Your task to perform on an android device: check out phone information Image 0: 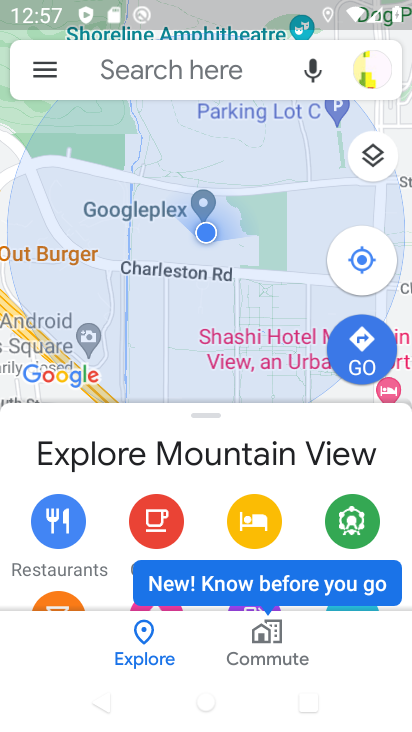
Step 0: press home button
Your task to perform on an android device: check out phone information Image 1: 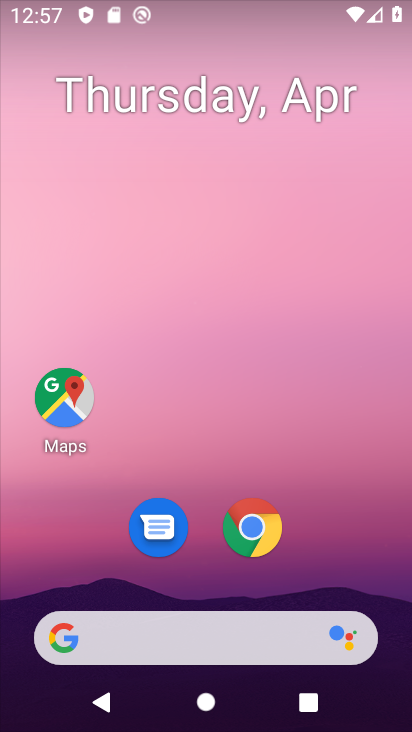
Step 1: drag from (346, 562) to (329, 144)
Your task to perform on an android device: check out phone information Image 2: 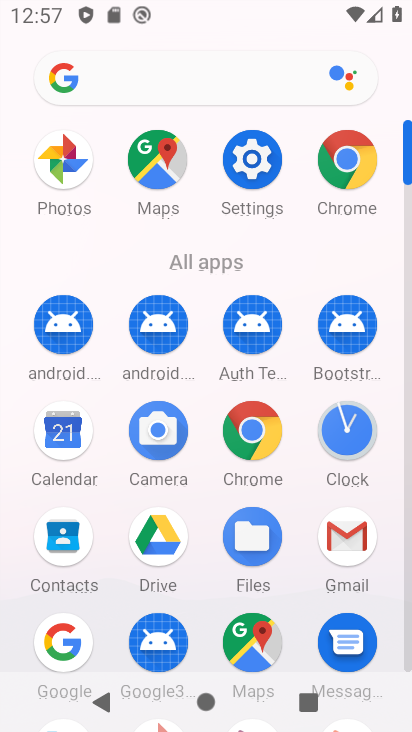
Step 2: click (405, 644)
Your task to perform on an android device: check out phone information Image 3: 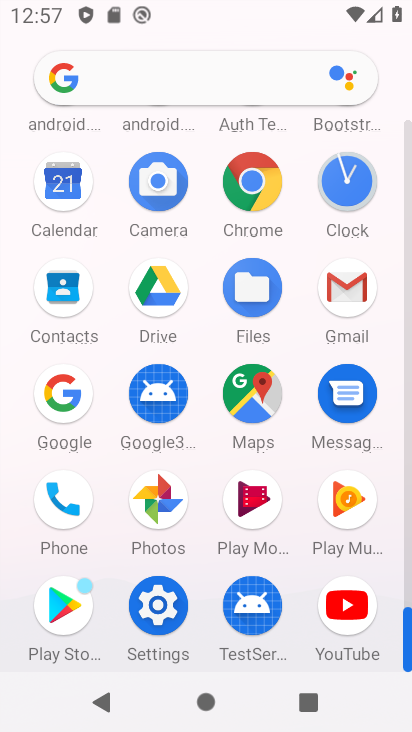
Step 3: click (158, 602)
Your task to perform on an android device: check out phone information Image 4: 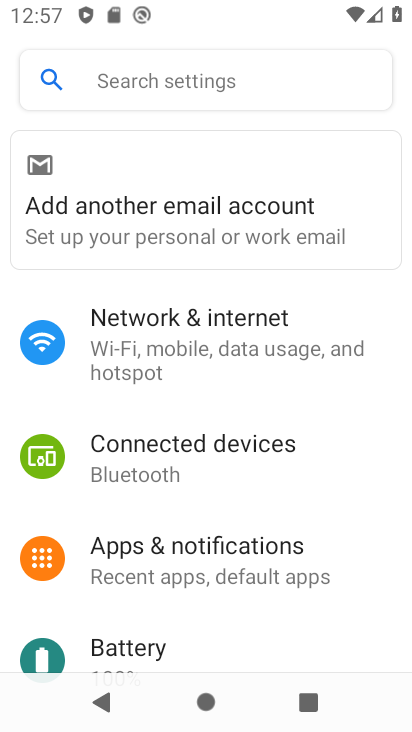
Step 4: drag from (305, 567) to (281, 256)
Your task to perform on an android device: check out phone information Image 5: 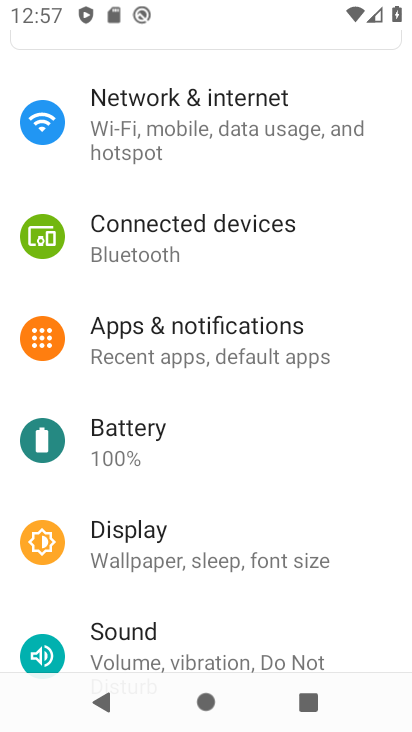
Step 5: drag from (271, 513) to (260, 263)
Your task to perform on an android device: check out phone information Image 6: 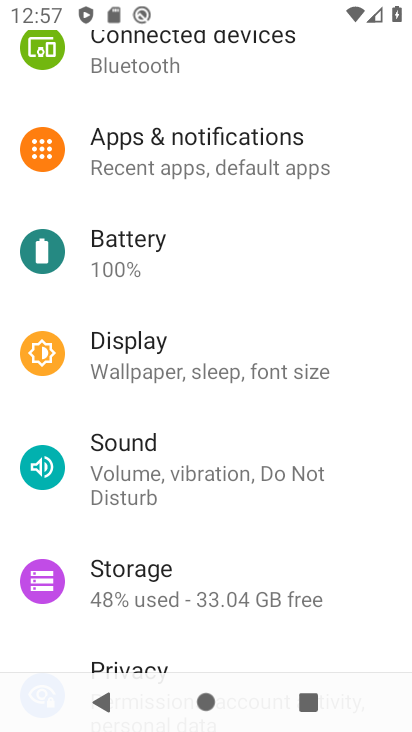
Step 6: drag from (245, 502) to (266, 268)
Your task to perform on an android device: check out phone information Image 7: 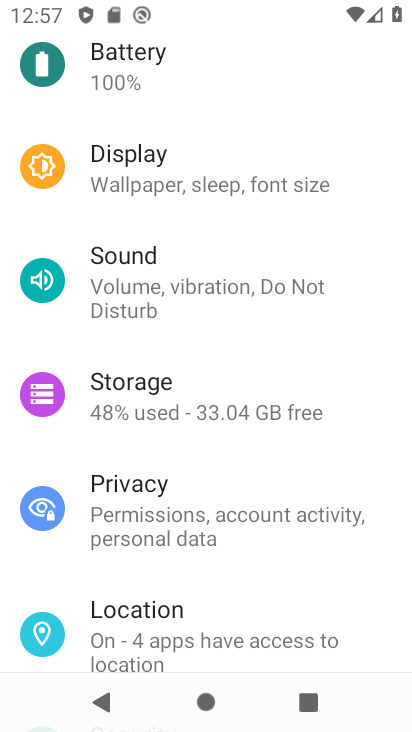
Step 7: drag from (256, 373) to (260, 159)
Your task to perform on an android device: check out phone information Image 8: 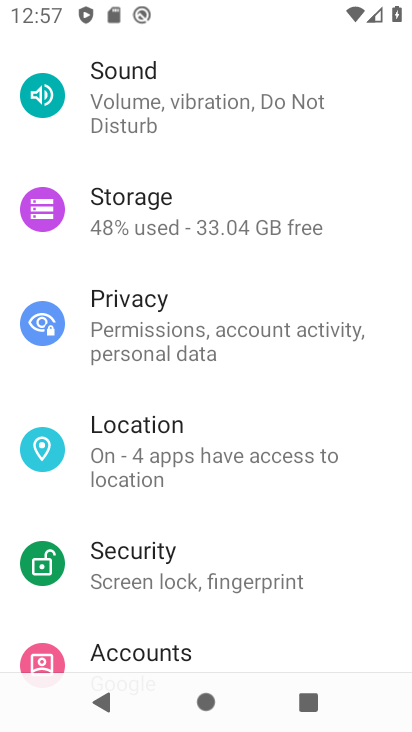
Step 8: drag from (252, 471) to (233, 139)
Your task to perform on an android device: check out phone information Image 9: 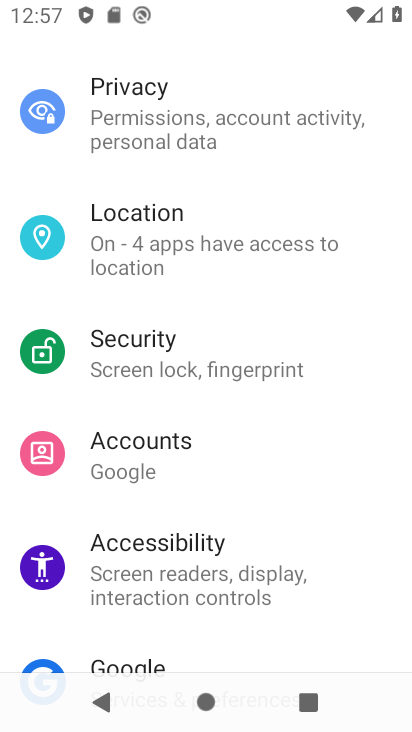
Step 9: drag from (213, 621) to (231, 356)
Your task to perform on an android device: check out phone information Image 10: 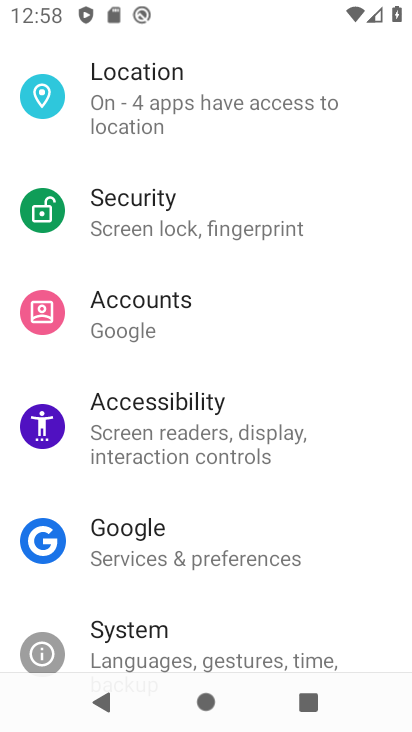
Step 10: drag from (230, 557) to (249, 257)
Your task to perform on an android device: check out phone information Image 11: 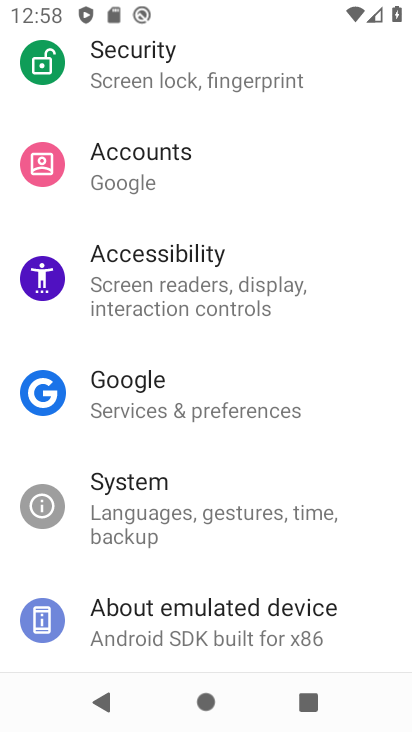
Step 11: drag from (260, 450) to (257, 207)
Your task to perform on an android device: check out phone information Image 12: 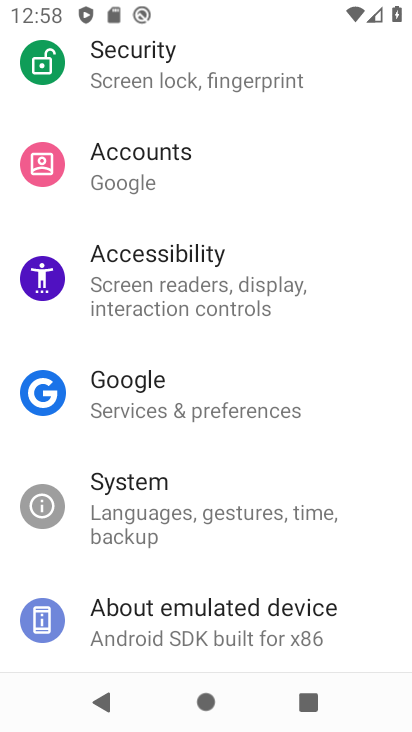
Step 12: click (159, 623)
Your task to perform on an android device: check out phone information Image 13: 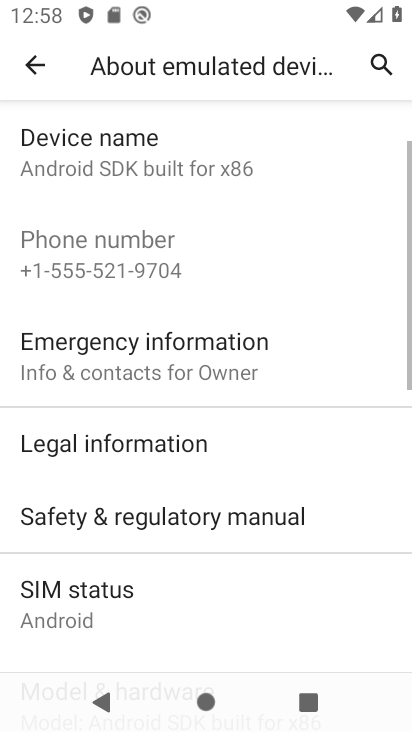
Step 13: task complete